Your task to perform on an android device: Show me recent news Image 0: 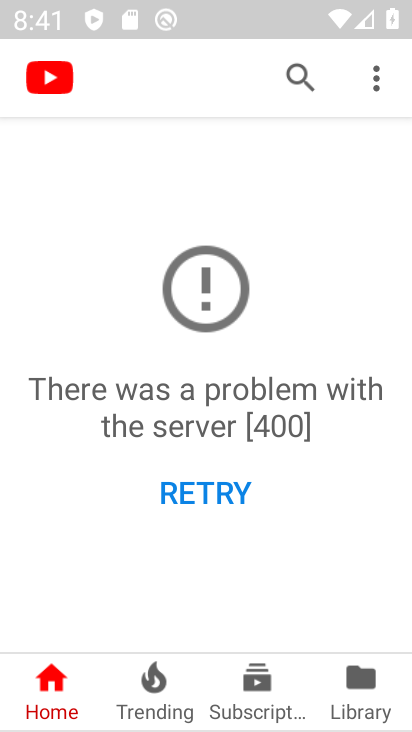
Step 0: press home button
Your task to perform on an android device: Show me recent news Image 1: 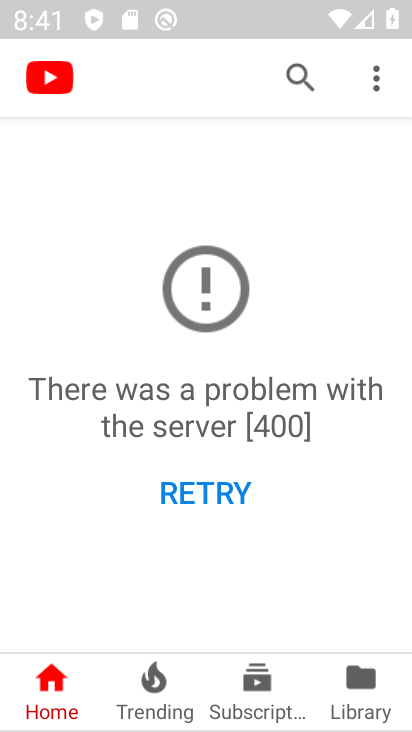
Step 1: press home button
Your task to perform on an android device: Show me recent news Image 2: 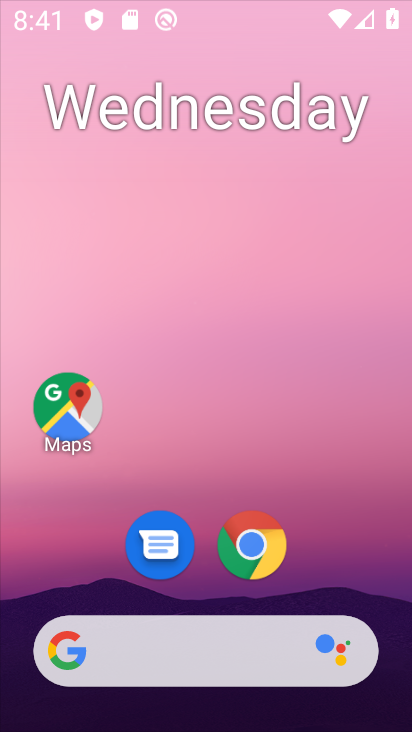
Step 2: press home button
Your task to perform on an android device: Show me recent news Image 3: 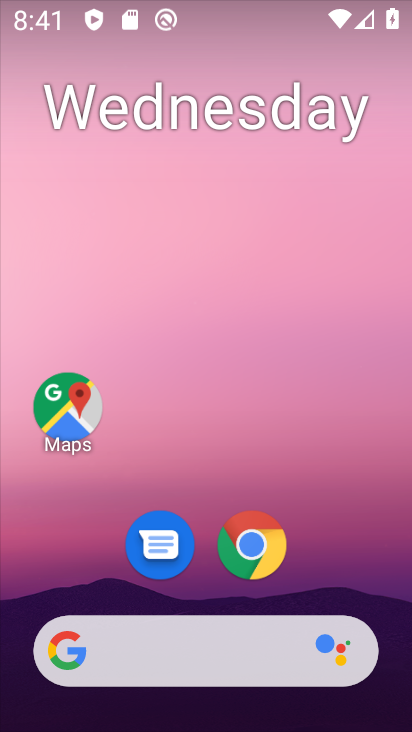
Step 3: drag from (0, 250) to (402, 535)
Your task to perform on an android device: Show me recent news Image 4: 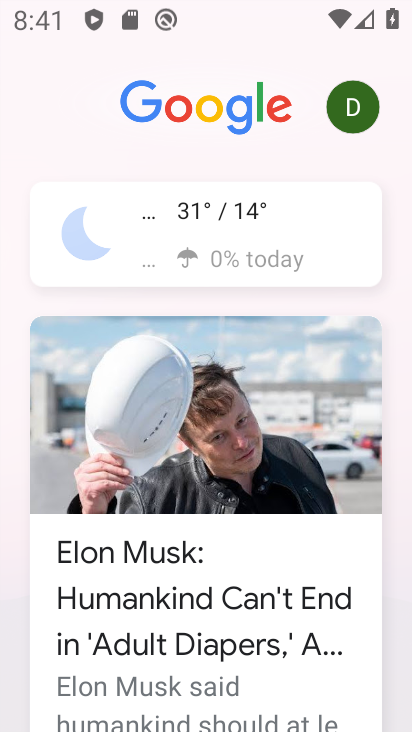
Step 4: drag from (226, 499) to (210, 368)
Your task to perform on an android device: Show me recent news Image 5: 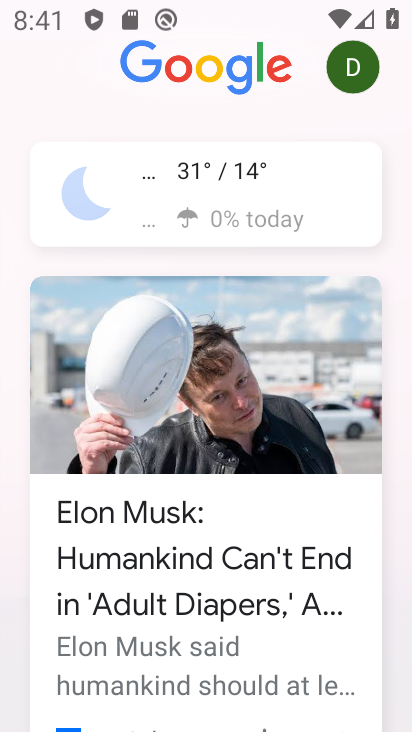
Step 5: drag from (253, 564) to (253, 280)
Your task to perform on an android device: Show me recent news Image 6: 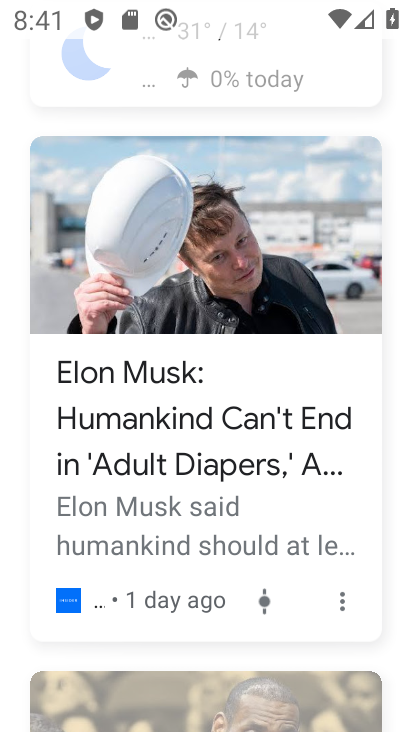
Step 6: drag from (244, 563) to (248, 182)
Your task to perform on an android device: Show me recent news Image 7: 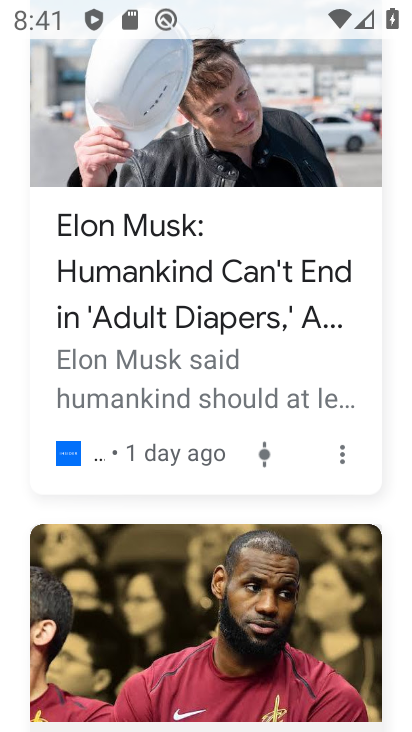
Step 7: drag from (268, 420) to (217, 217)
Your task to perform on an android device: Show me recent news Image 8: 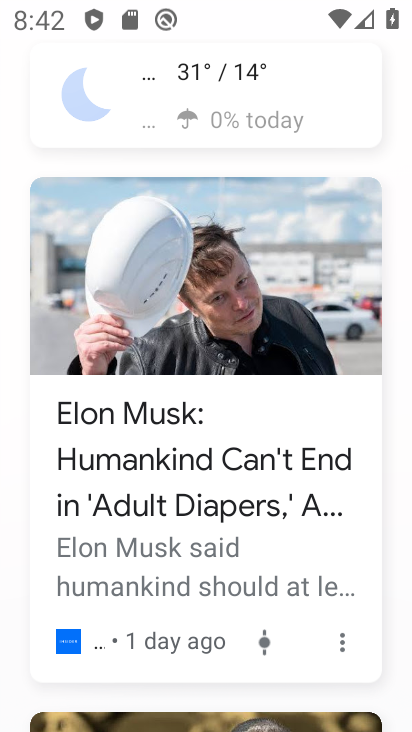
Step 8: drag from (213, 563) to (233, 272)
Your task to perform on an android device: Show me recent news Image 9: 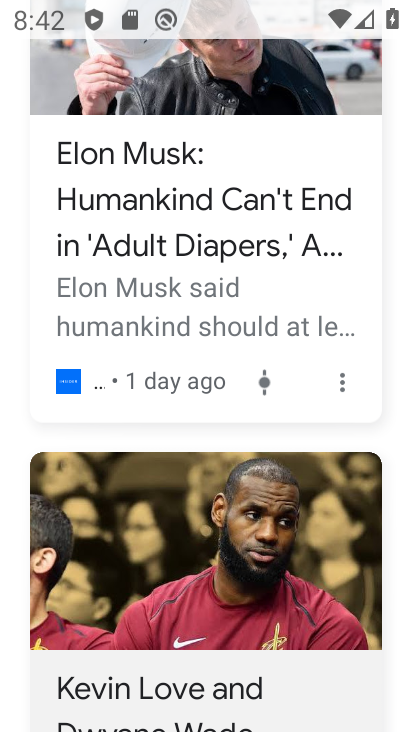
Step 9: drag from (237, 616) to (237, 195)
Your task to perform on an android device: Show me recent news Image 10: 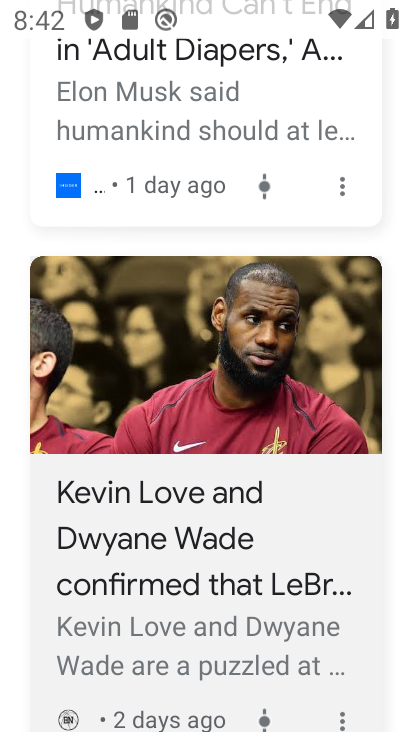
Step 10: click (283, 194)
Your task to perform on an android device: Show me recent news Image 11: 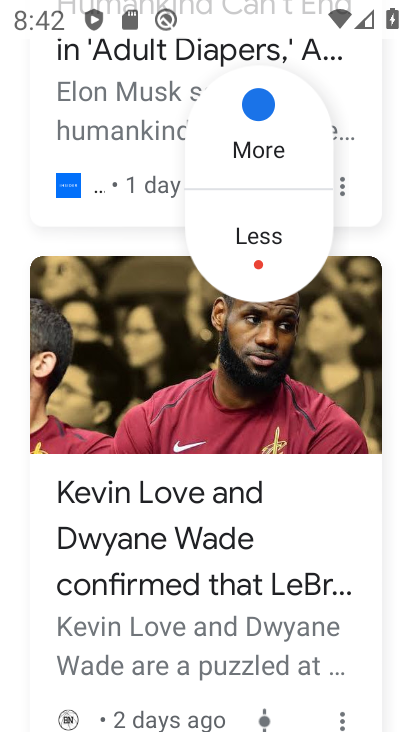
Step 11: task complete